Your task to perform on an android device: turn on location history Image 0: 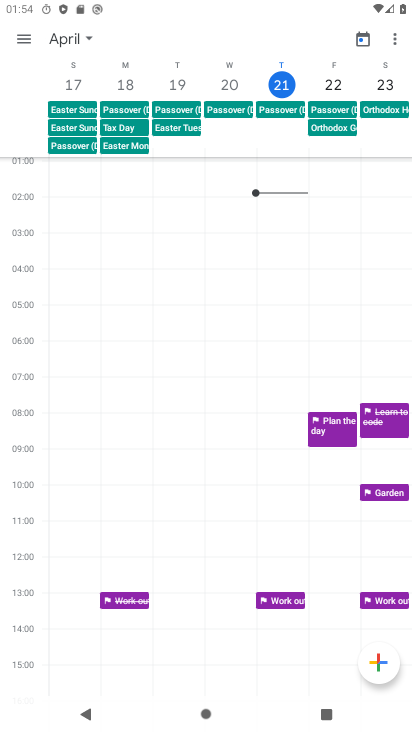
Step 0: drag from (269, 575) to (266, 452)
Your task to perform on an android device: turn on location history Image 1: 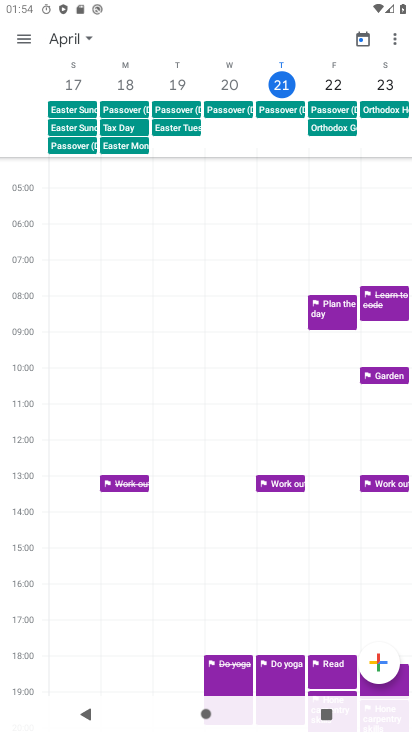
Step 1: press home button
Your task to perform on an android device: turn on location history Image 2: 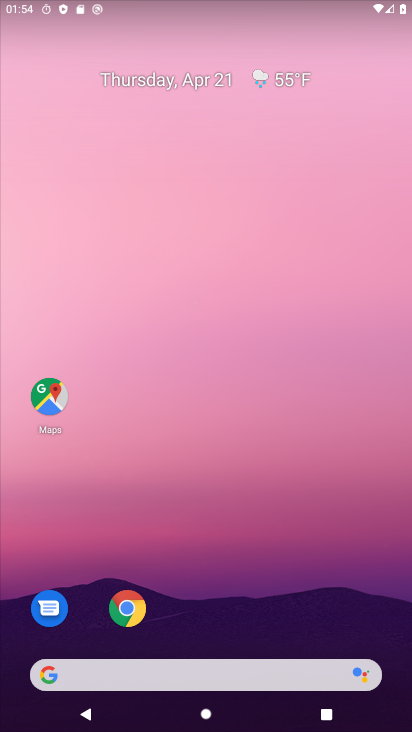
Step 2: drag from (185, 506) to (158, 200)
Your task to perform on an android device: turn on location history Image 3: 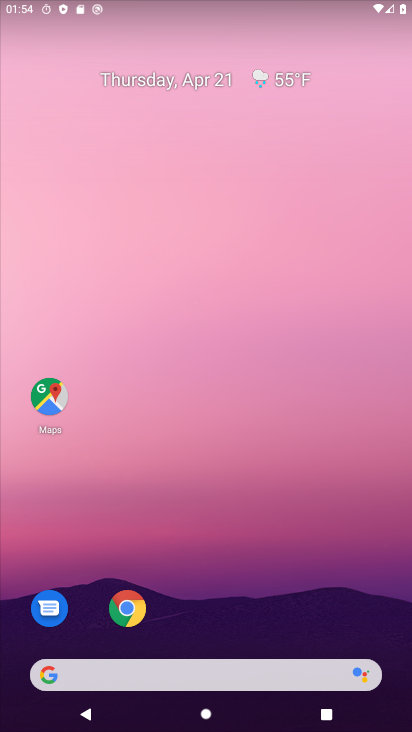
Step 3: drag from (220, 574) to (121, 53)
Your task to perform on an android device: turn on location history Image 4: 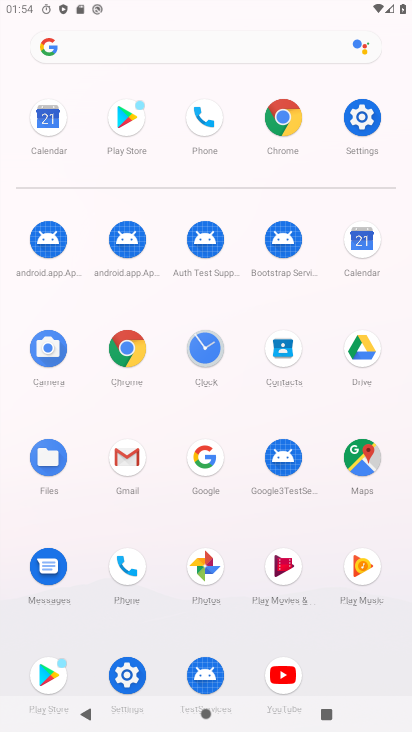
Step 4: click (356, 124)
Your task to perform on an android device: turn on location history Image 5: 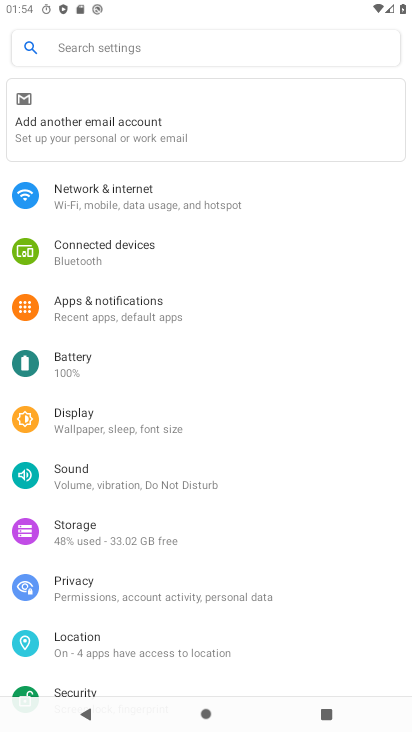
Step 5: click (84, 645)
Your task to perform on an android device: turn on location history Image 6: 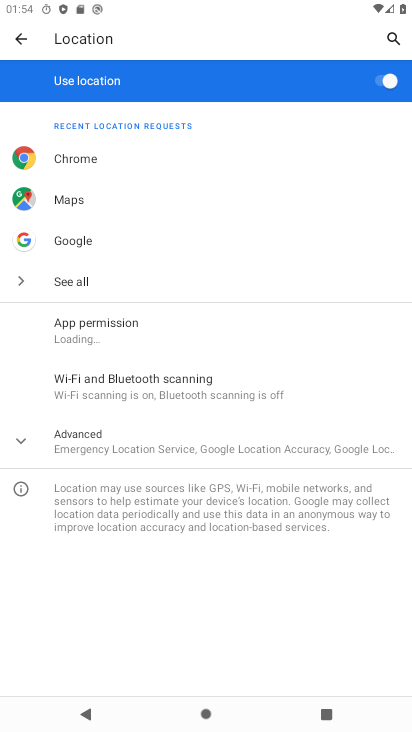
Step 6: click (92, 438)
Your task to perform on an android device: turn on location history Image 7: 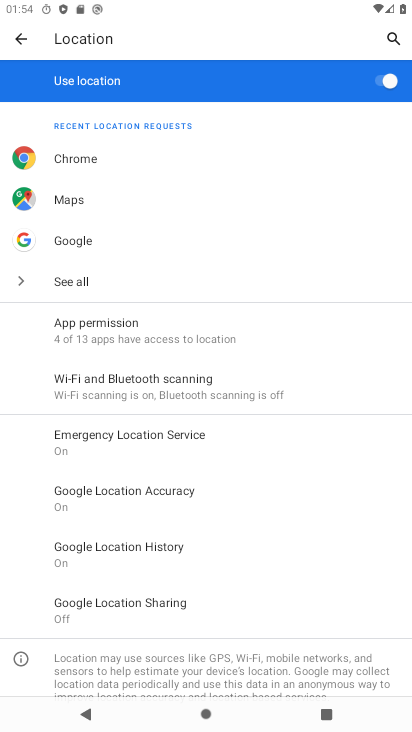
Step 7: click (85, 551)
Your task to perform on an android device: turn on location history Image 8: 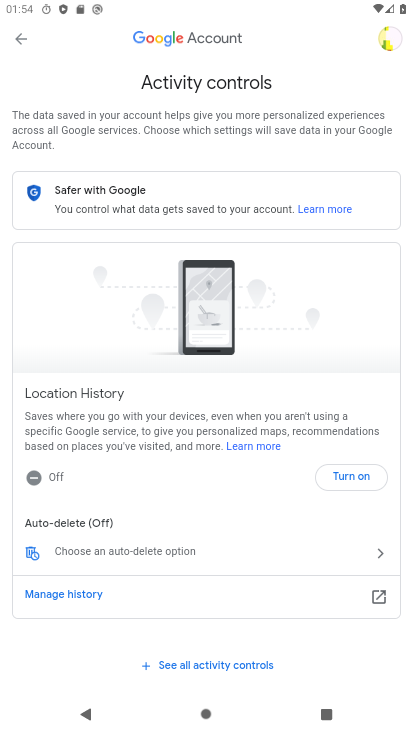
Step 8: click (343, 481)
Your task to perform on an android device: turn on location history Image 9: 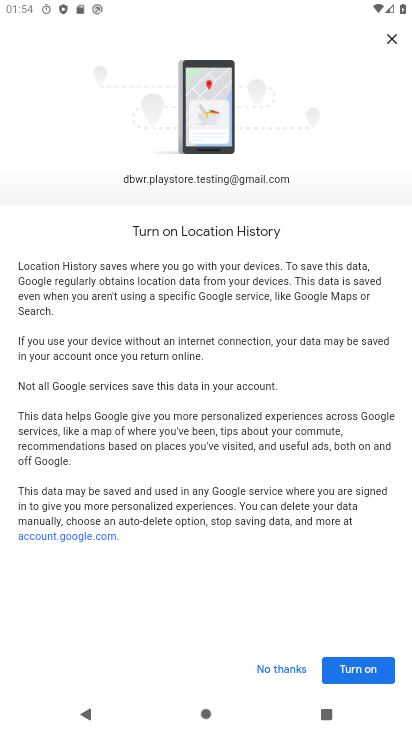
Step 9: click (361, 668)
Your task to perform on an android device: turn on location history Image 10: 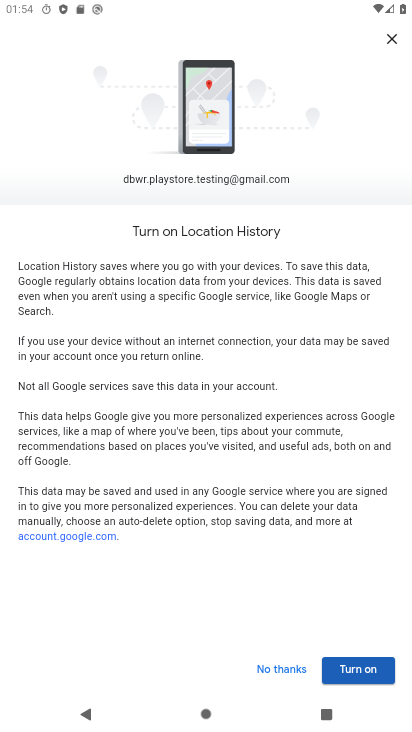
Step 10: click (361, 668)
Your task to perform on an android device: turn on location history Image 11: 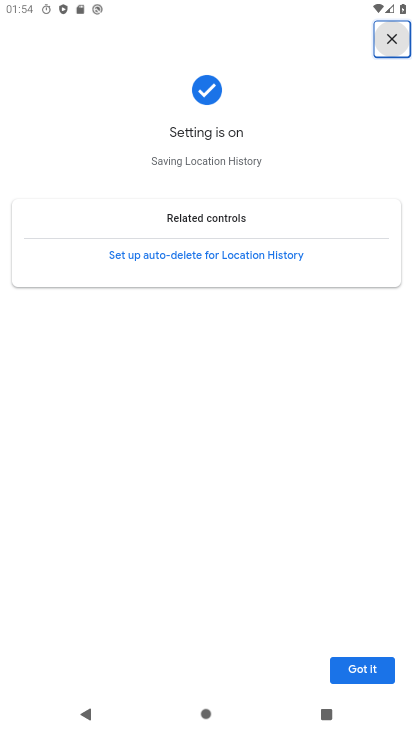
Step 11: task complete